Your task to perform on an android device: open app "Duolingo: language lessons" (install if not already installed) Image 0: 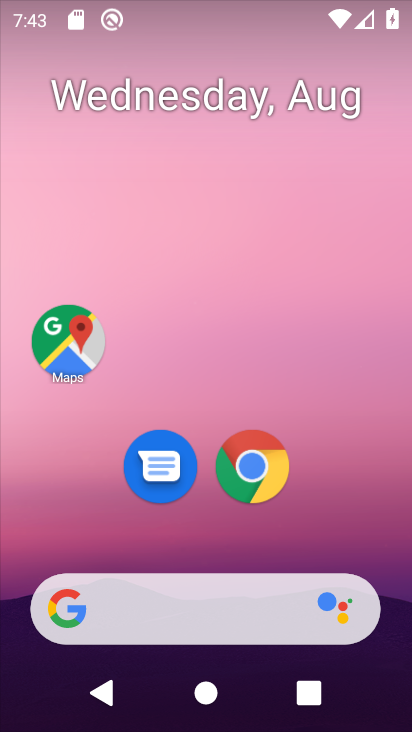
Step 0: drag from (166, 624) to (163, 148)
Your task to perform on an android device: open app "Duolingo: language lessons" (install if not already installed) Image 1: 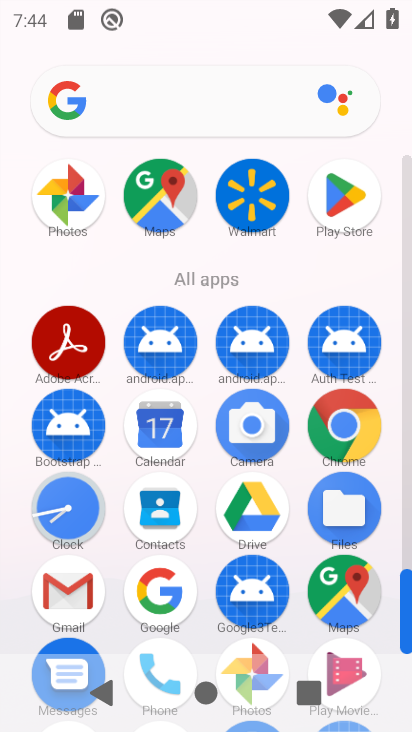
Step 1: click (347, 199)
Your task to perform on an android device: open app "Duolingo: language lessons" (install if not already installed) Image 2: 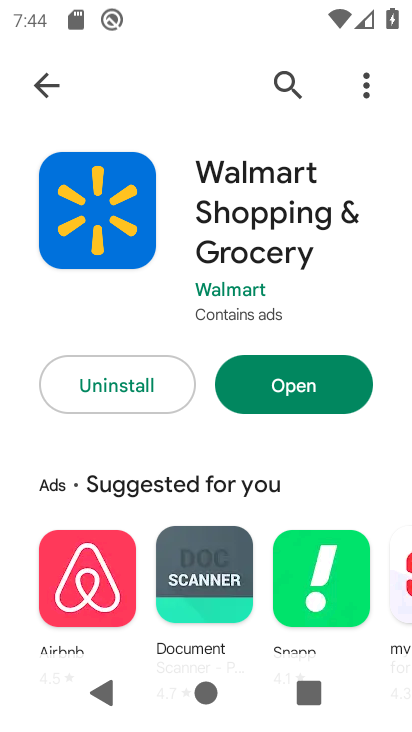
Step 2: press back button
Your task to perform on an android device: open app "Duolingo: language lessons" (install if not already installed) Image 3: 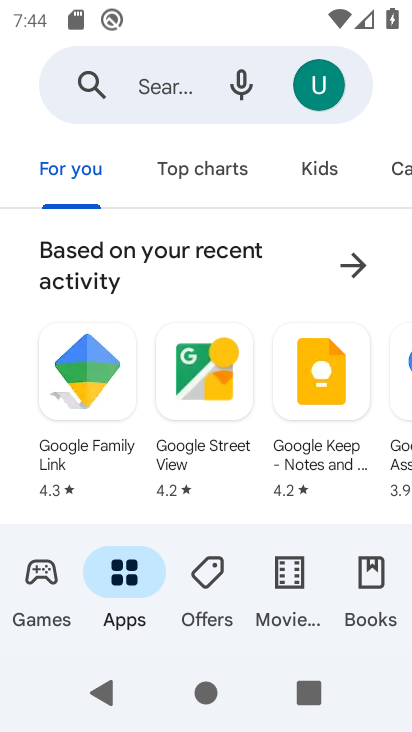
Step 3: click (165, 93)
Your task to perform on an android device: open app "Duolingo: language lessons" (install if not already installed) Image 4: 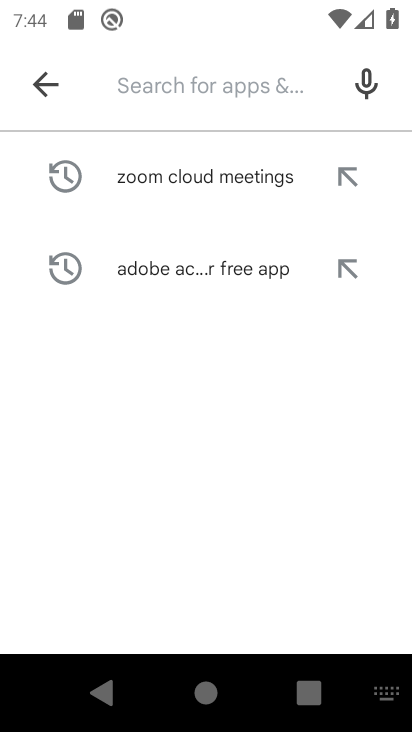
Step 4: type "Duolingo: language lessons"
Your task to perform on an android device: open app "Duolingo: language lessons" (install if not already installed) Image 5: 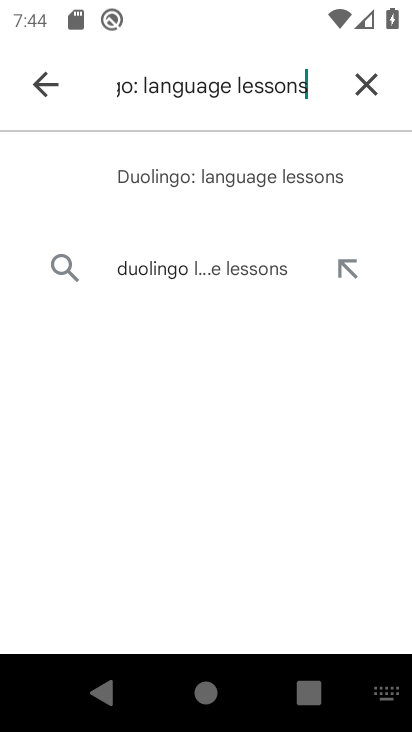
Step 5: type ""
Your task to perform on an android device: open app "Duolingo: language lessons" (install if not already installed) Image 6: 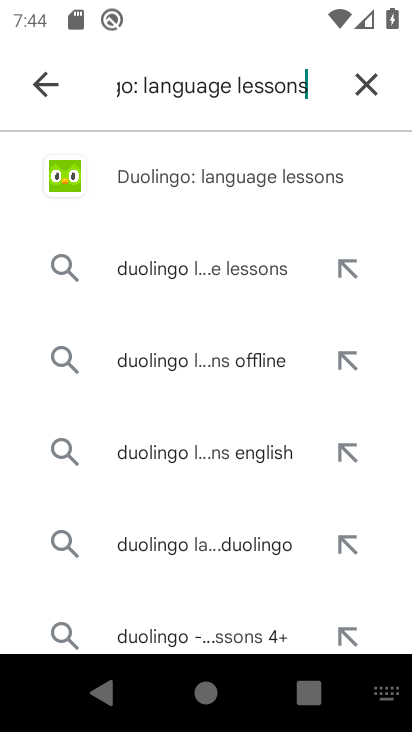
Step 6: click (233, 180)
Your task to perform on an android device: open app "Duolingo: language lessons" (install if not already installed) Image 7: 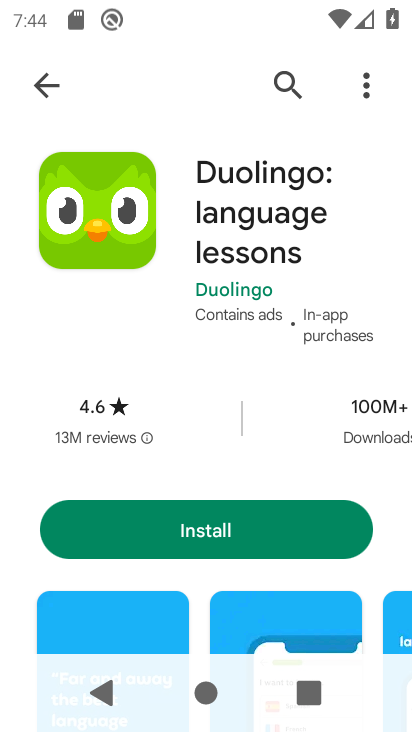
Step 7: click (211, 536)
Your task to perform on an android device: open app "Duolingo: language lessons" (install if not already installed) Image 8: 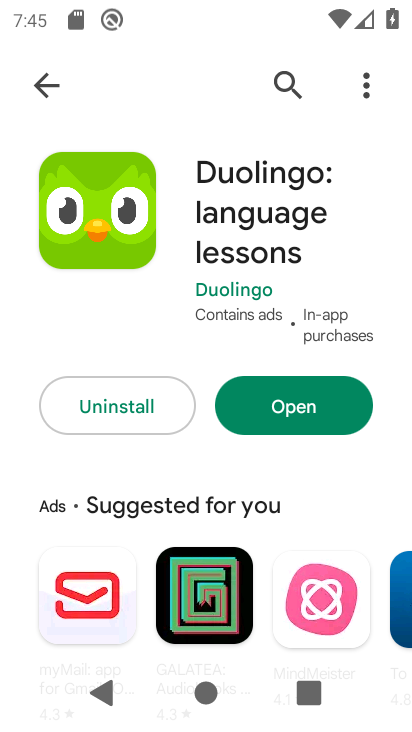
Step 8: click (286, 411)
Your task to perform on an android device: open app "Duolingo: language lessons" (install if not already installed) Image 9: 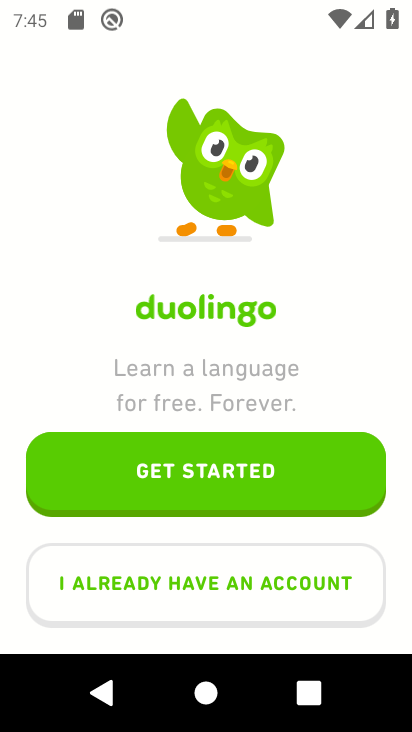
Step 9: task complete